Your task to perform on an android device: toggle pop-ups in chrome Image 0: 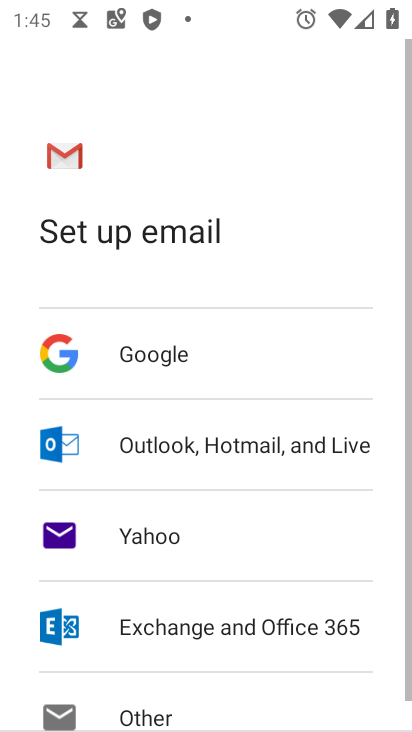
Step 0: press home button
Your task to perform on an android device: toggle pop-ups in chrome Image 1: 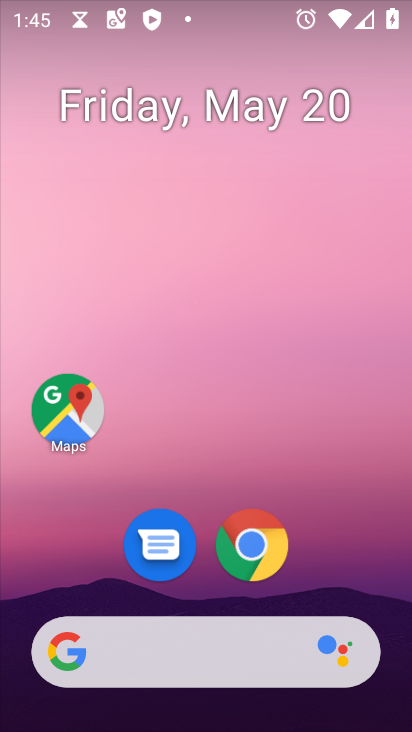
Step 1: click (252, 554)
Your task to perform on an android device: toggle pop-ups in chrome Image 2: 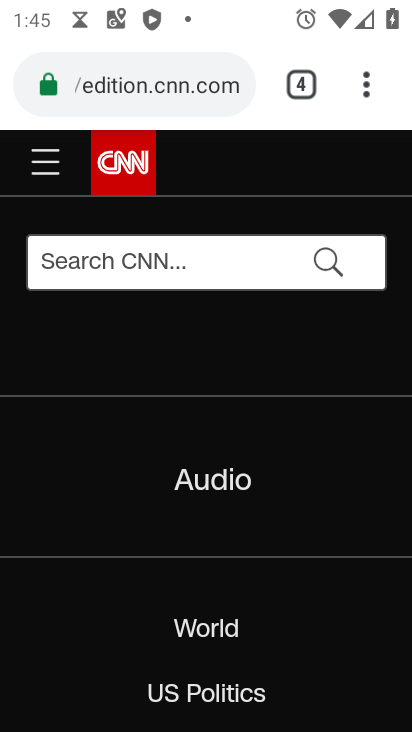
Step 2: click (374, 91)
Your task to perform on an android device: toggle pop-ups in chrome Image 3: 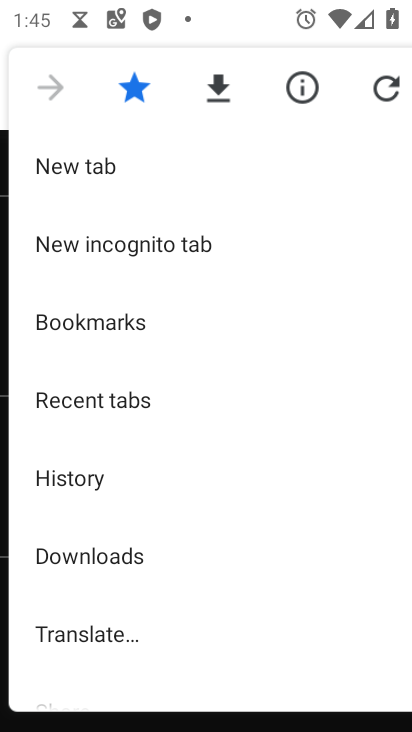
Step 3: drag from (227, 633) to (225, 304)
Your task to perform on an android device: toggle pop-ups in chrome Image 4: 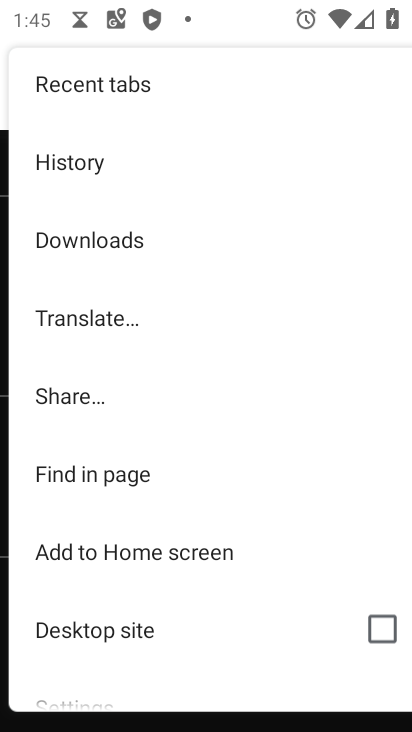
Step 4: drag from (160, 633) to (187, 348)
Your task to perform on an android device: toggle pop-ups in chrome Image 5: 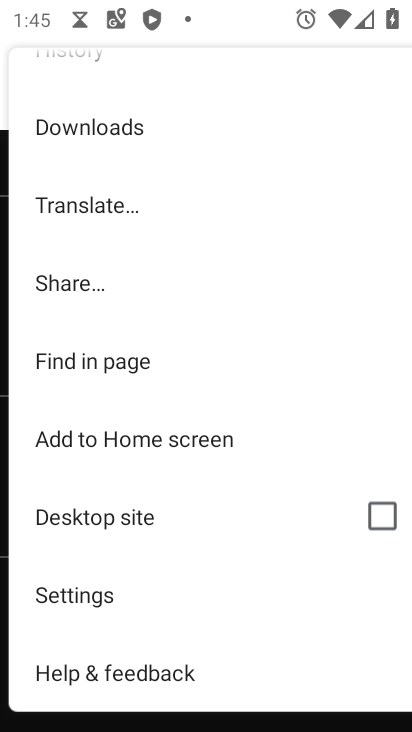
Step 5: click (94, 596)
Your task to perform on an android device: toggle pop-ups in chrome Image 6: 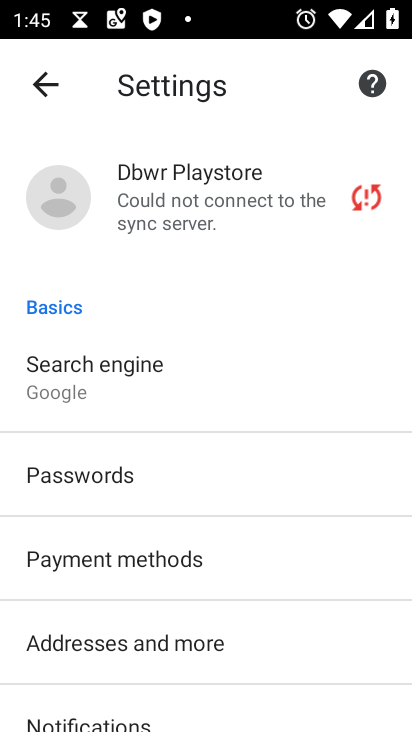
Step 6: drag from (255, 600) to (299, 227)
Your task to perform on an android device: toggle pop-ups in chrome Image 7: 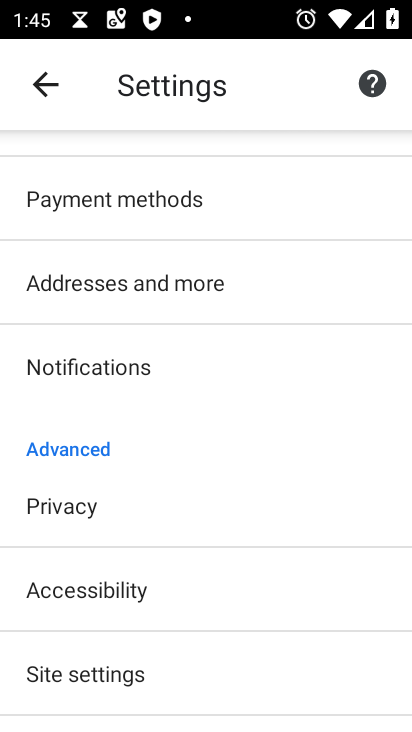
Step 7: click (125, 664)
Your task to perform on an android device: toggle pop-ups in chrome Image 8: 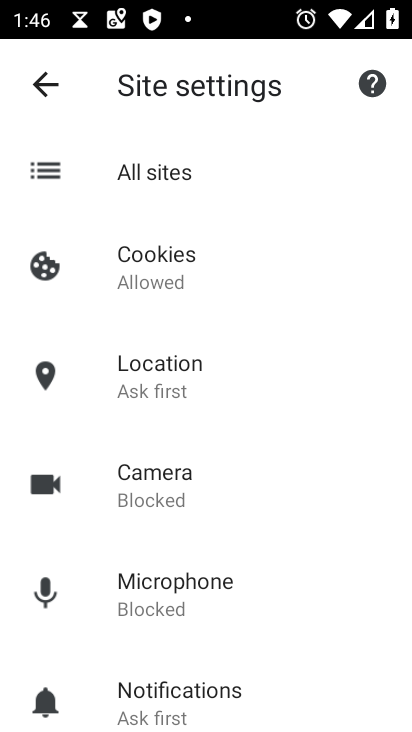
Step 8: drag from (253, 704) to (214, 436)
Your task to perform on an android device: toggle pop-ups in chrome Image 9: 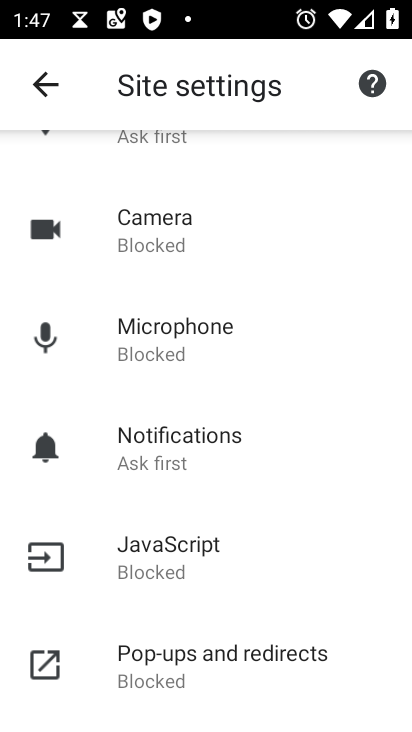
Step 9: drag from (176, 596) to (215, 384)
Your task to perform on an android device: toggle pop-ups in chrome Image 10: 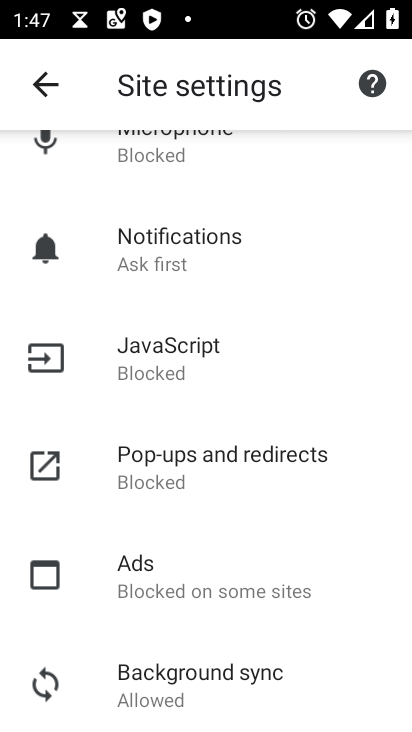
Step 10: click (197, 456)
Your task to perform on an android device: toggle pop-ups in chrome Image 11: 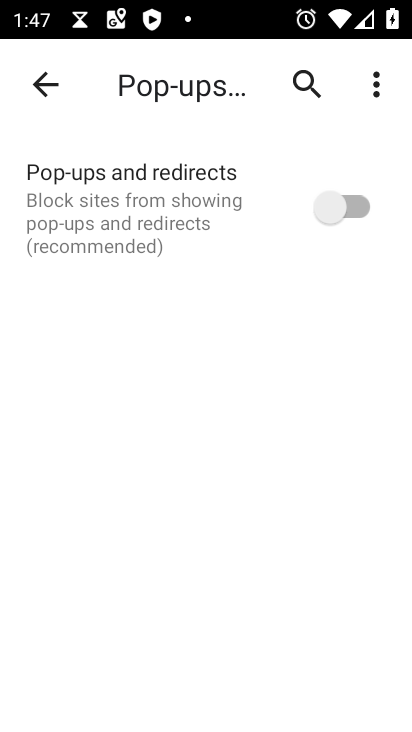
Step 11: click (364, 200)
Your task to perform on an android device: toggle pop-ups in chrome Image 12: 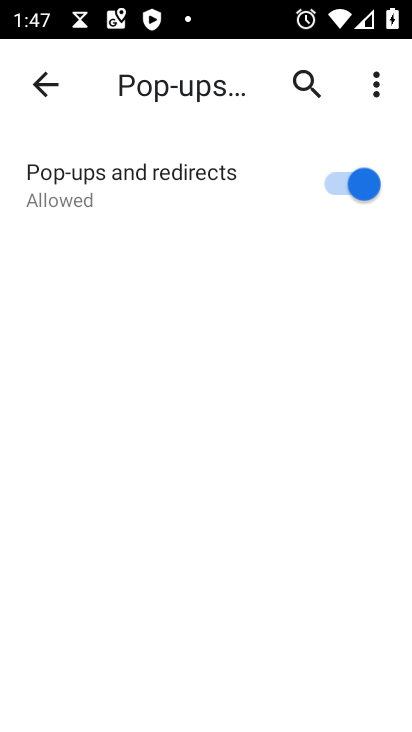
Step 12: task complete